Your task to perform on an android device: toggle translation in the chrome app Image 0: 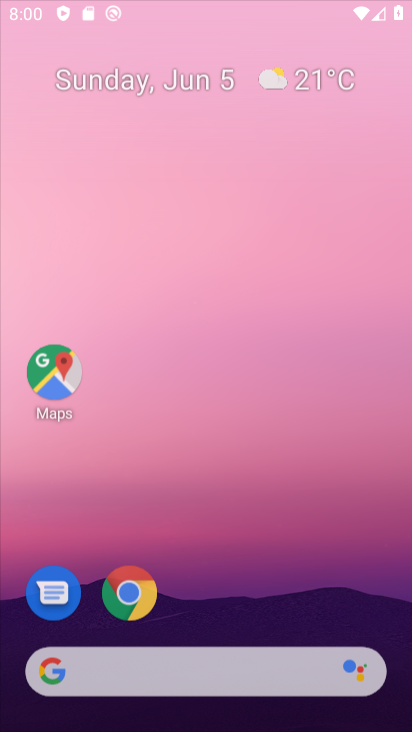
Step 0: click (262, 7)
Your task to perform on an android device: toggle translation in the chrome app Image 1: 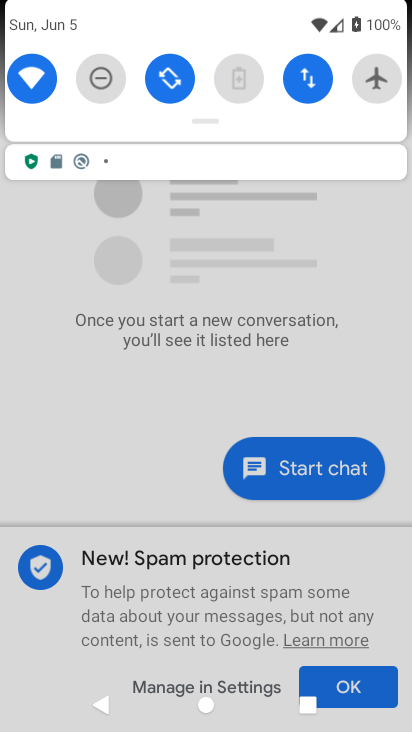
Step 1: press home button
Your task to perform on an android device: toggle translation in the chrome app Image 2: 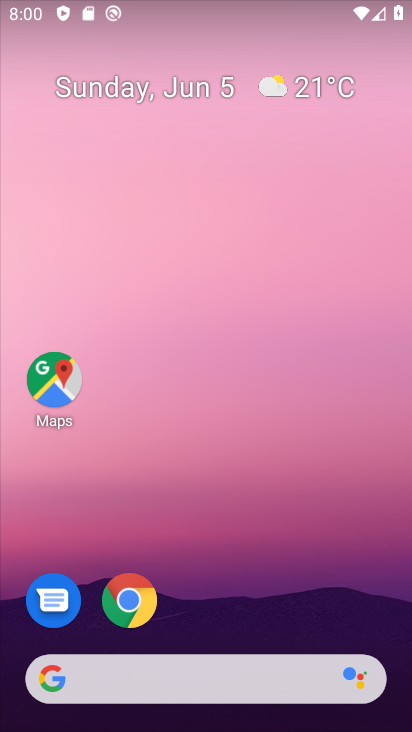
Step 2: drag from (265, 622) to (272, 4)
Your task to perform on an android device: toggle translation in the chrome app Image 3: 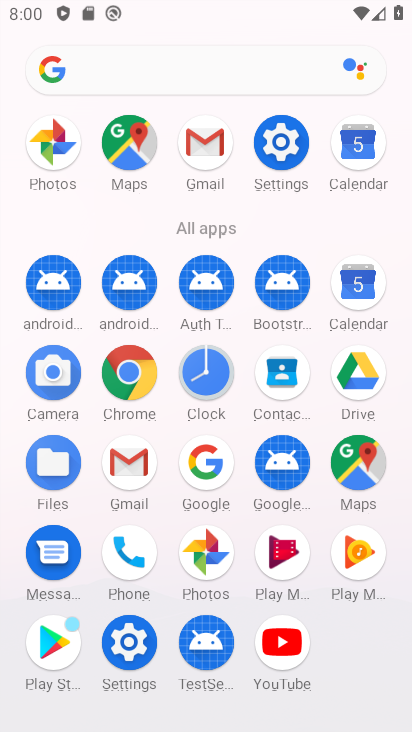
Step 3: click (126, 372)
Your task to perform on an android device: toggle translation in the chrome app Image 4: 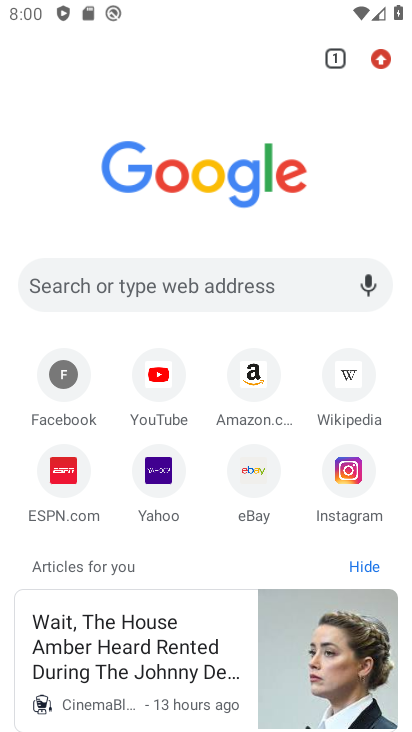
Step 4: click (388, 53)
Your task to perform on an android device: toggle translation in the chrome app Image 5: 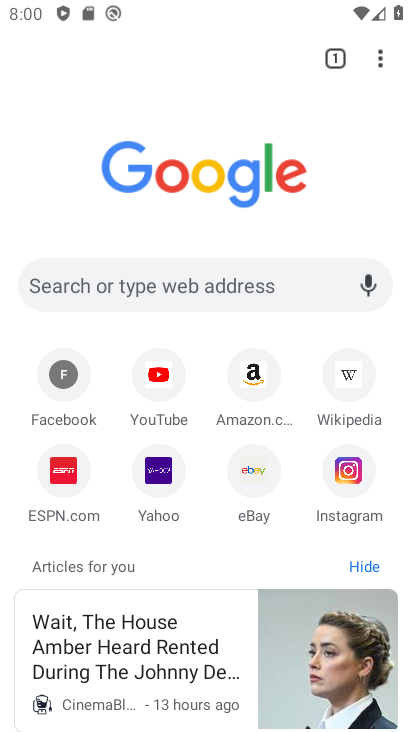
Step 5: click (388, 54)
Your task to perform on an android device: toggle translation in the chrome app Image 6: 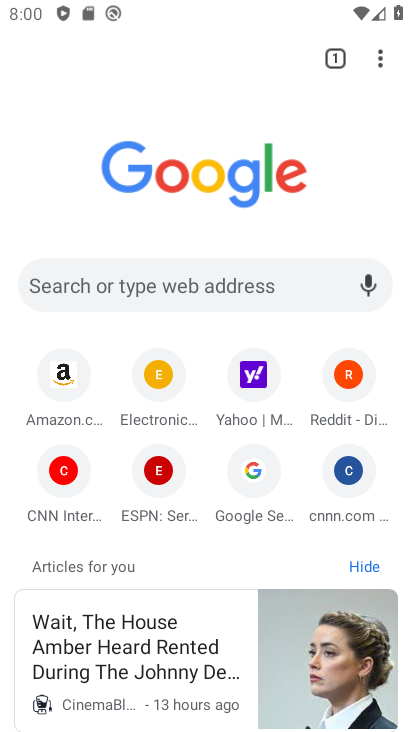
Step 6: click (388, 55)
Your task to perform on an android device: toggle translation in the chrome app Image 7: 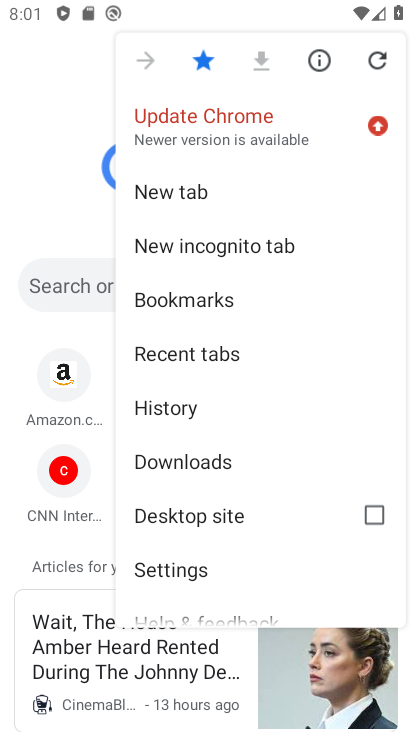
Step 7: click (199, 556)
Your task to perform on an android device: toggle translation in the chrome app Image 8: 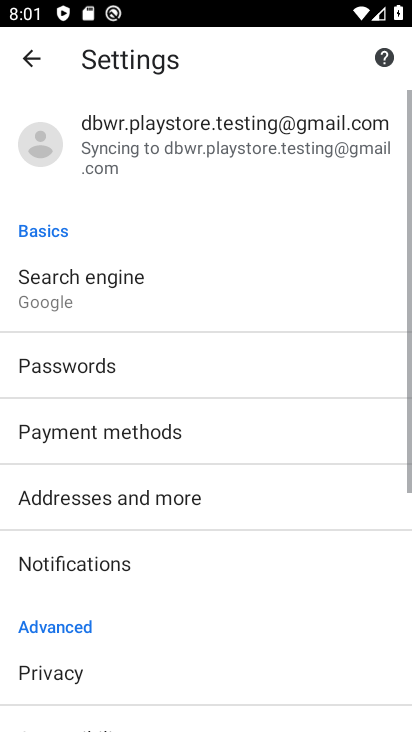
Step 8: drag from (141, 612) to (191, 156)
Your task to perform on an android device: toggle translation in the chrome app Image 9: 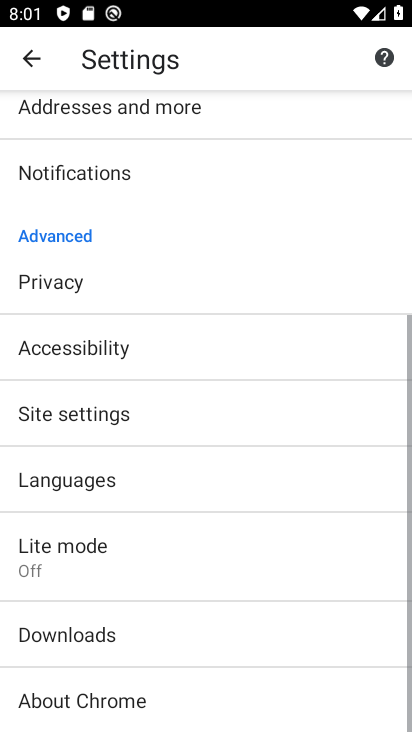
Step 9: click (59, 488)
Your task to perform on an android device: toggle translation in the chrome app Image 10: 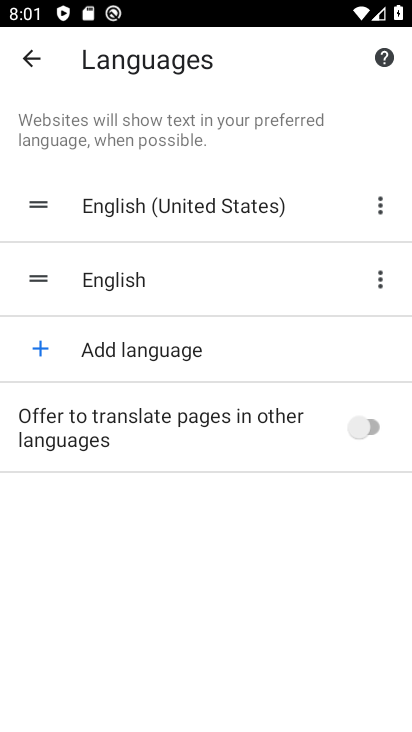
Step 10: click (359, 429)
Your task to perform on an android device: toggle translation in the chrome app Image 11: 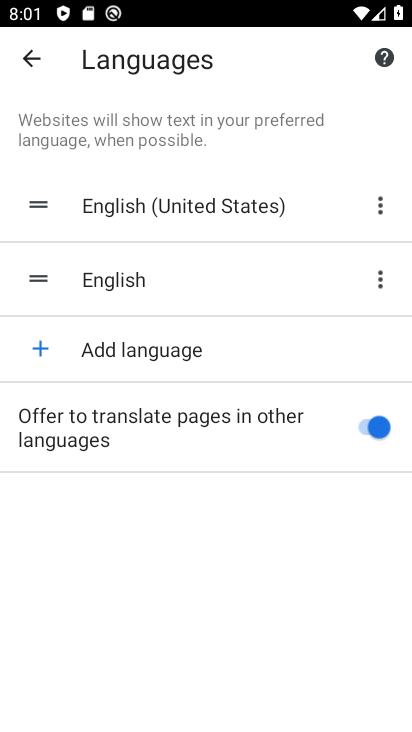
Step 11: task complete